Your task to perform on an android device: Show me popular videos on Youtube Image 0: 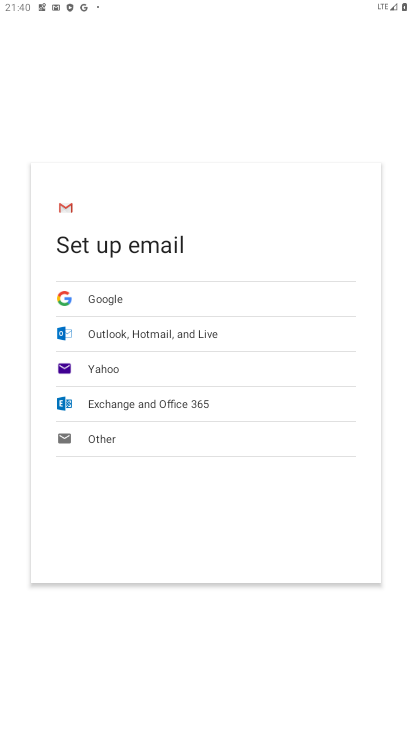
Step 0: press home button
Your task to perform on an android device: Show me popular videos on Youtube Image 1: 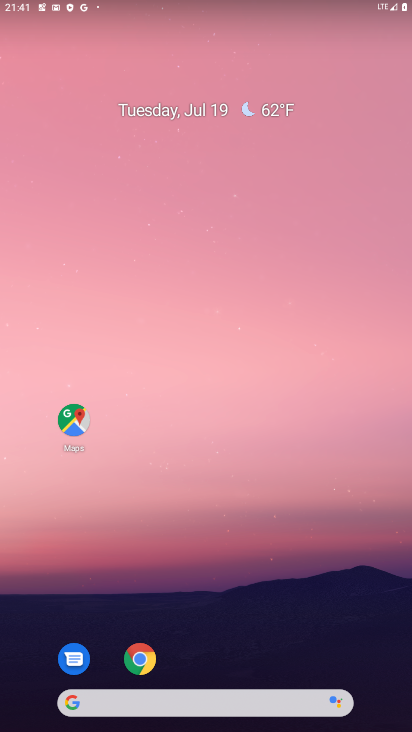
Step 1: drag from (270, 666) to (238, 92)
Your task to perform on an android device: Show me popular videos on Youtube Image 2: 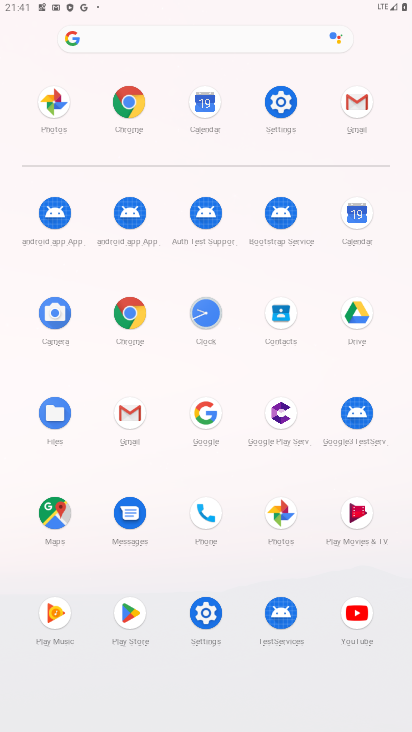
Step 2: click (352, 610)
Your task to perform on an android device: Show me popular videos on Youtube Image 3: 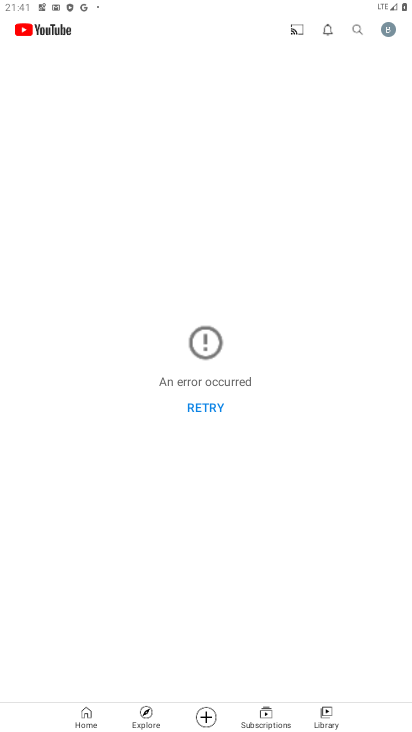
Step 3: click (353, 29)
Your task to perform on an android device: Show me popular videos on Youtube Image 4: 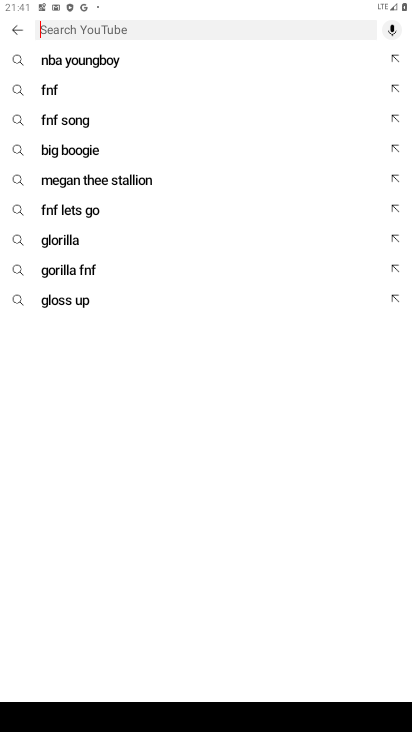
Step 4: type " popular videos on Youtube"
Your task to perform on an android device: Show me popular videos on Youtube Image 5: 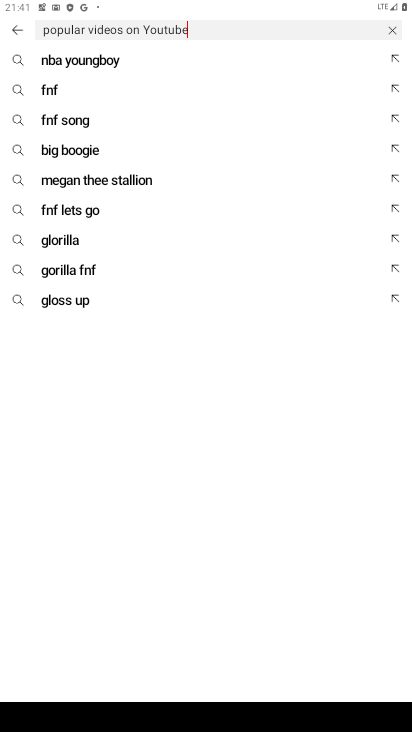
Step 5: type ""
Your task to perform on an android device: Show me popular videos on Youtube Image 6: 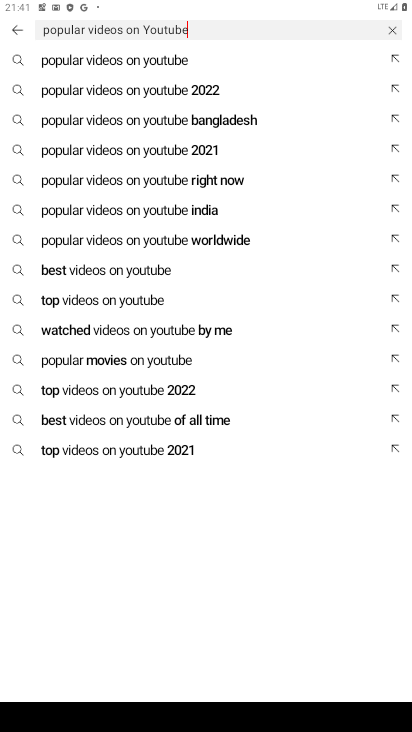
Step 6: click (57, 55)
Your task to perform on an android device: Show me popular videos on Youtube Image 7: 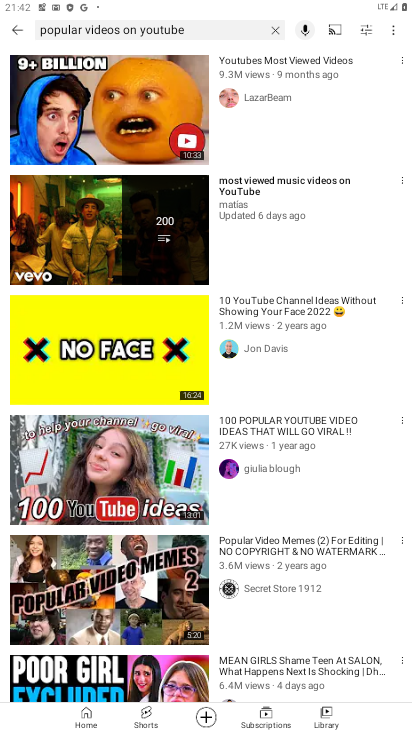
Step 7: task complete